Your task to perform on an android device: Search for seafood restaurants on Google Maps Image 0: 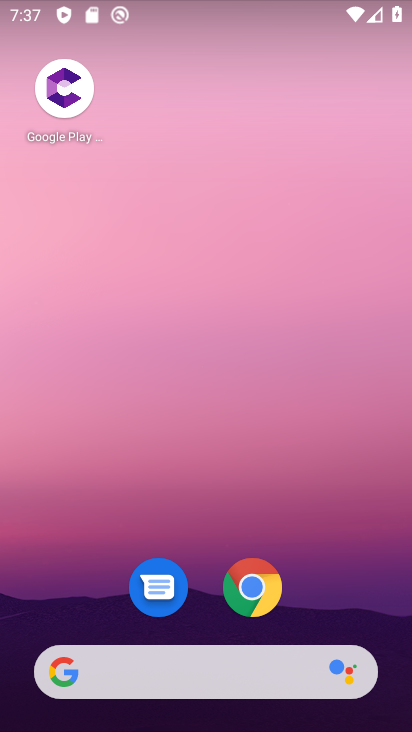
Step 0: drag from (231, 644) to (205, 130)
Your task to perform on an android device: Search for seafood restaurants on Google Maps Image 1: 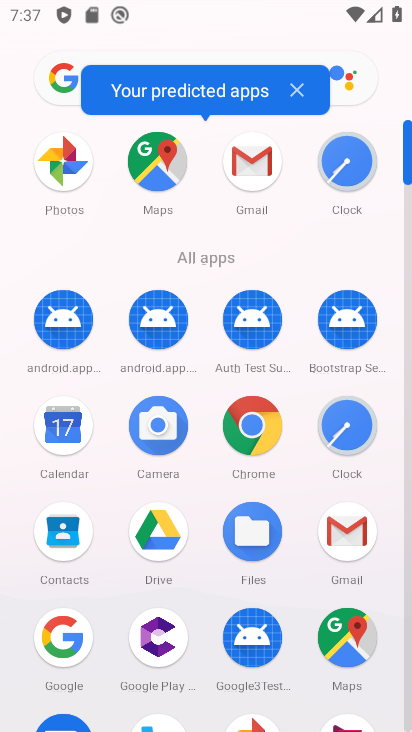
Step 1: click (351, 638)
Your task to perform on an android device: Search for seafood restaurants on Google Maps Image 2: 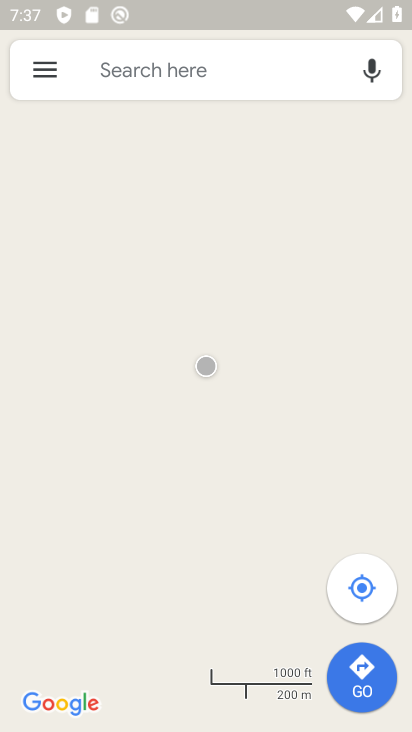
Step 2: click (157, 69)
Your task to perform on an android device: Search for seafood restaurants on Google Maps Image 3: 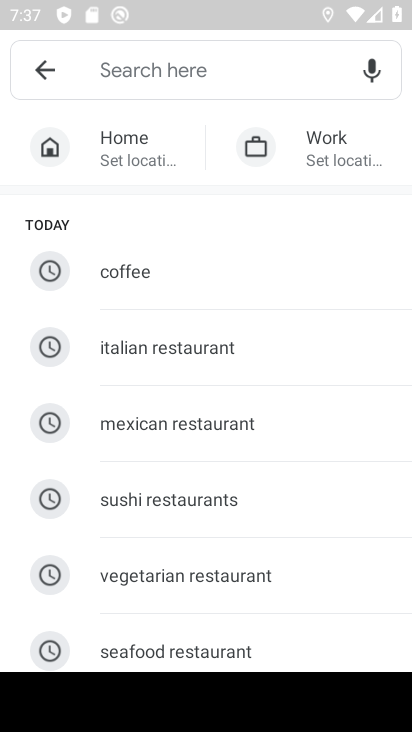
Step 3: click (166, 652)
Your task to perform on an android device: Search for seafood restaurants on Google Maps Image 4: 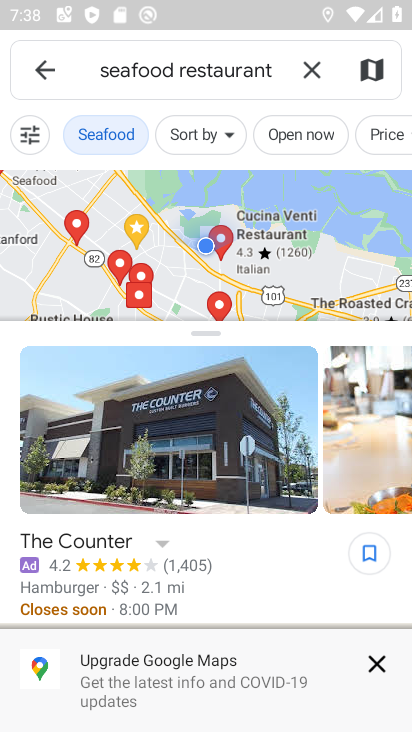
Step 4: task complete